Your task to perform on an android device: turn off translation in the chrome app Image 0: 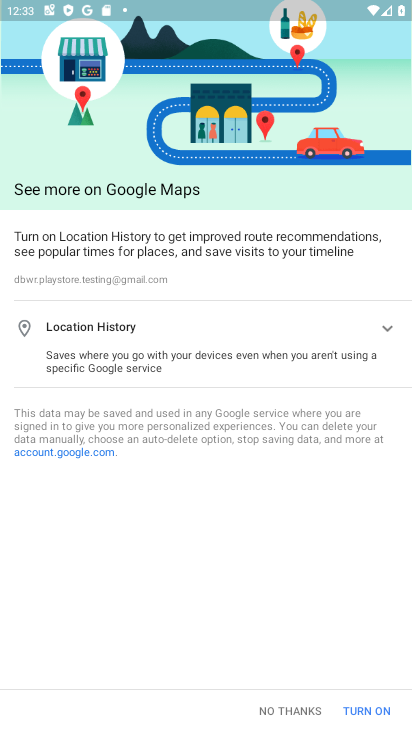
Step 0: press home button
Your task to perform on an android device: turn off translation in the chrome app Image 1: 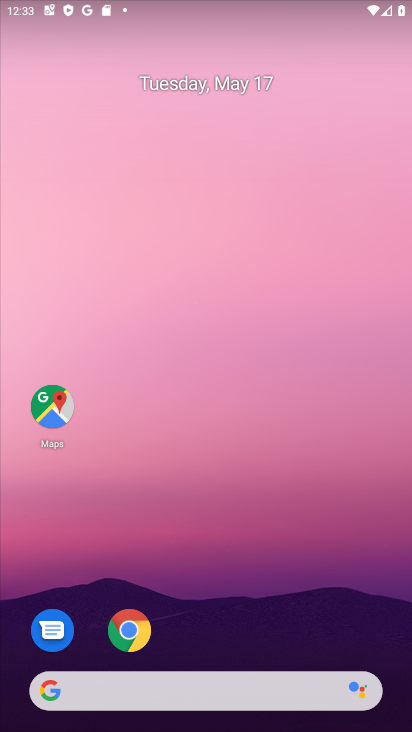
Step 1: click (128, 618)
Your task to perform on an android device: turn off translation in the chrome app Image 2: 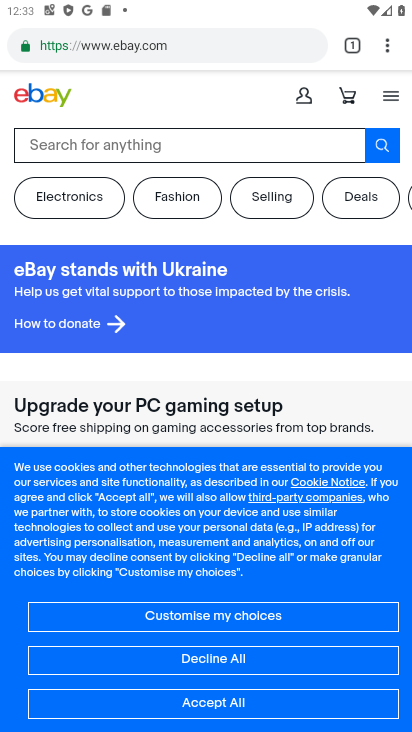
Step 2: click (384, 43)
Your task to perform on an android device: turn off translation in the chrome app Image 3: 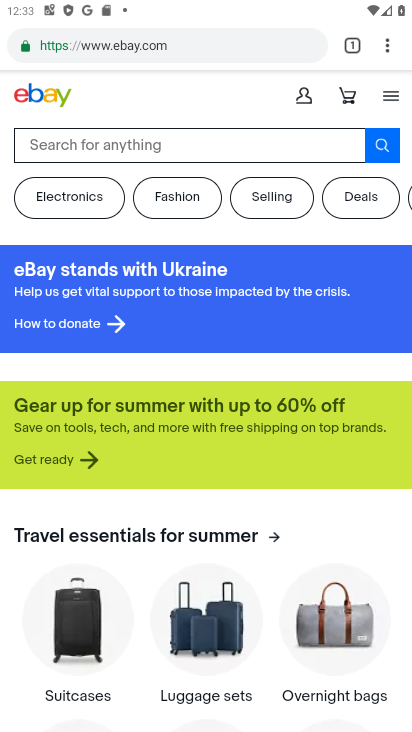
Step 3: click (390, 49)
Your task to perform on an android device: turn off translation in the chrome app Image 4: 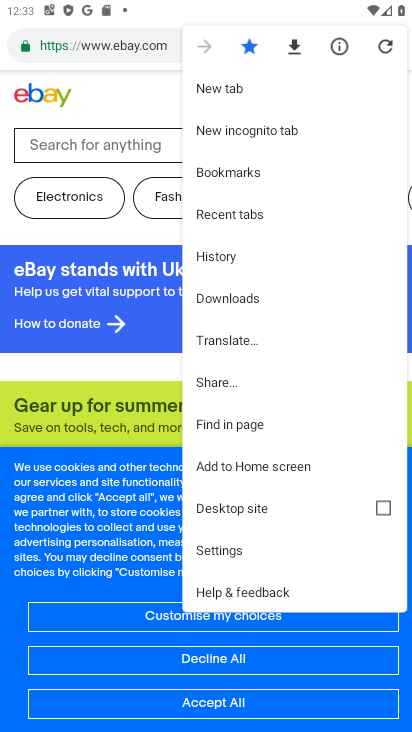
Step 4: click (217, 555)
Your task to perform on an android device: turn off translation in the chrome app Image 5: 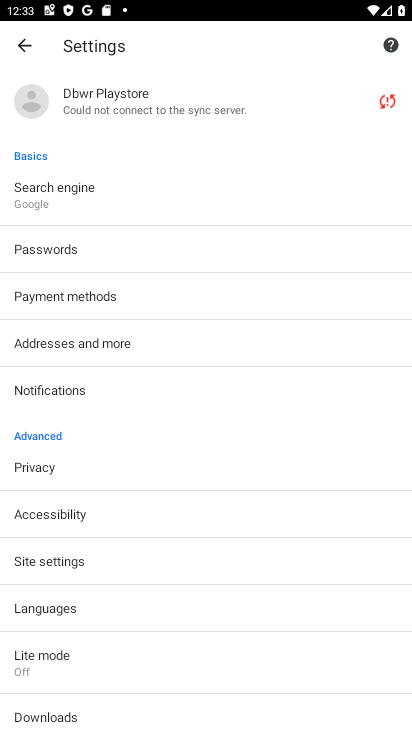
Step 5: click (110, 616)
Your task to perform on an android device: turn off translation in the chrome app Image 6: 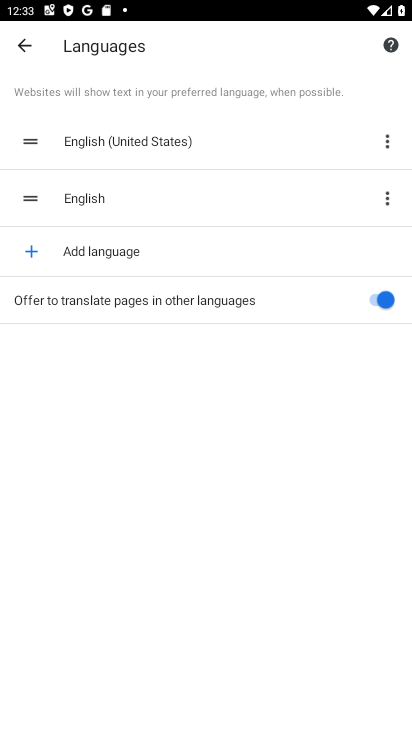
Step 6: click (360, 292)
Your task to perform on an android device: turn off translation in the chrome app Image 7: 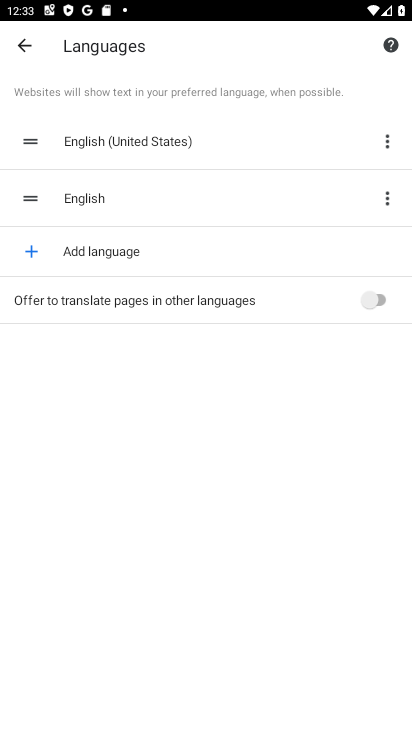
Step 7: task complete